Your task to perform on an android device: see sites visited before in the chrome app Image 0: 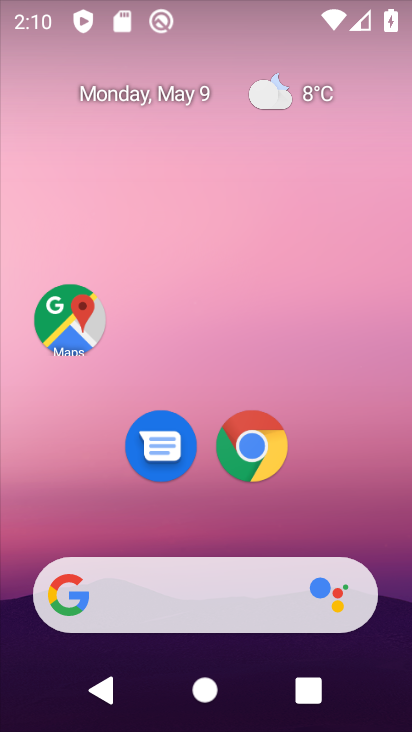
Step 0: click (257, 449)
Your task to perform on an android device: see sites visited before in the chrome app Image 1: 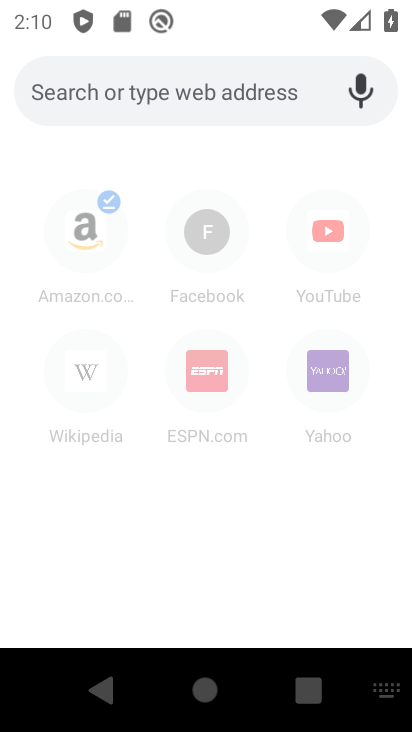
Step 1: drag from (336, 148) to (321, 448)
Your task to perform on an android device: see sites visited before in the chrome app Image 2: 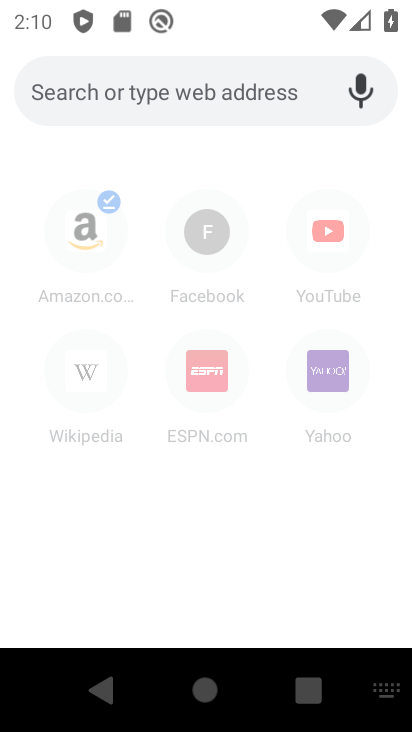
Step 2: press back button
Your task to perform on an android device: see sites visited before in the chrome app Image 3: 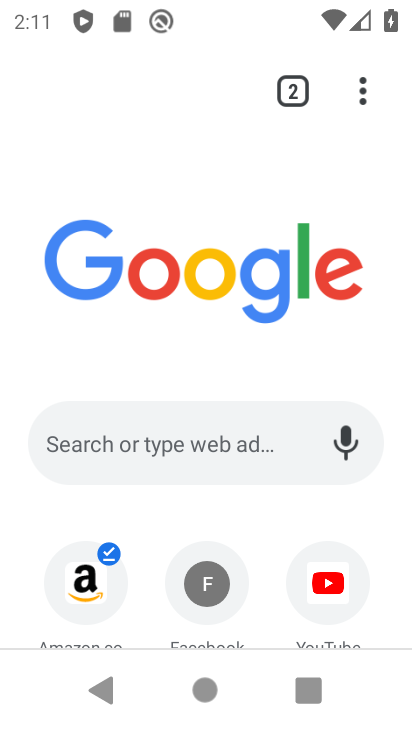
Step 3: drag from (361, 89) to (86, 144)
Your task to perform on an android device: see sites visited before in the chrome app Image 4: 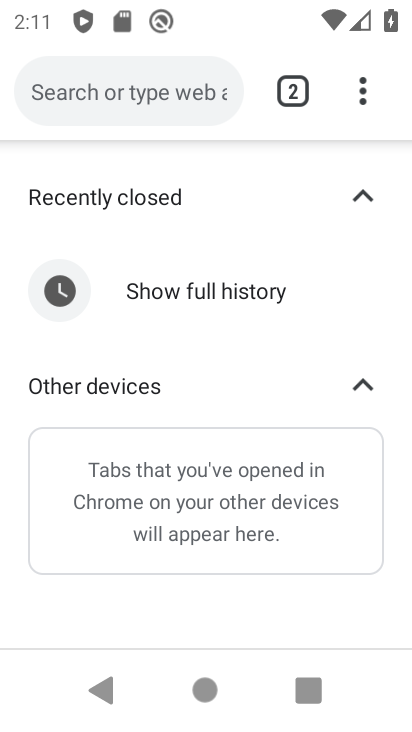
Step 4: click (199, 293)
Your task to perform on an android device: see sites visited before in the chrome app Image 5: 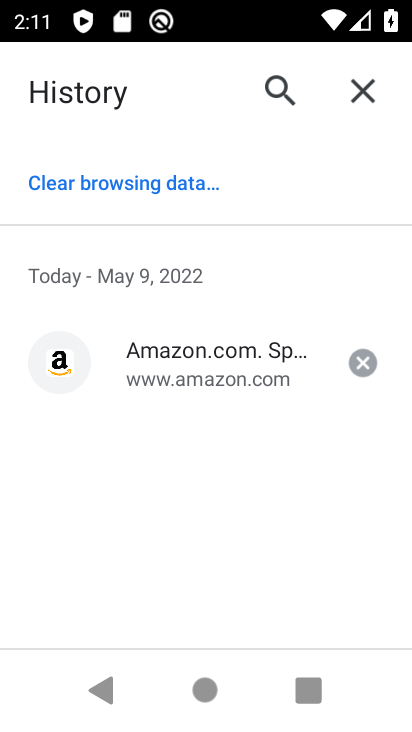
Step 5: task complete